Your task to perform on an android device: Go to Android settings Image 0: 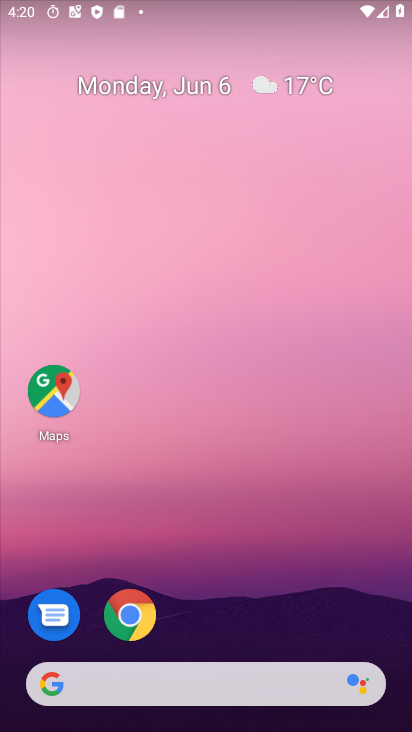
Step 0: drag from (223, 654) to (231, 129)
Your task to perform on an android device: Go to Android settings Image 1: 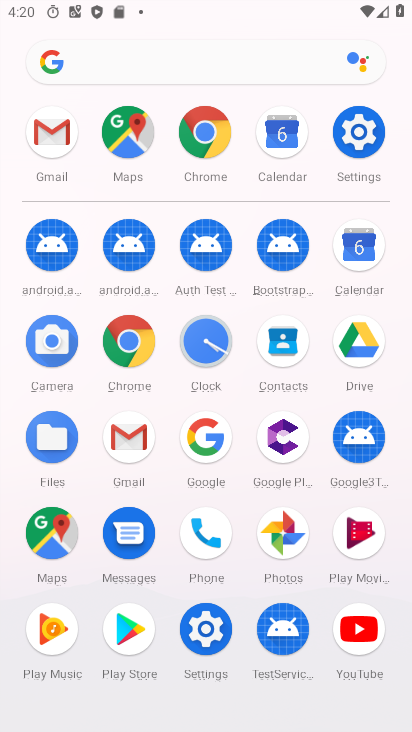
Step 1: click (380, 130)
Your task to perform on an android device: Go to Android settings Image 2: 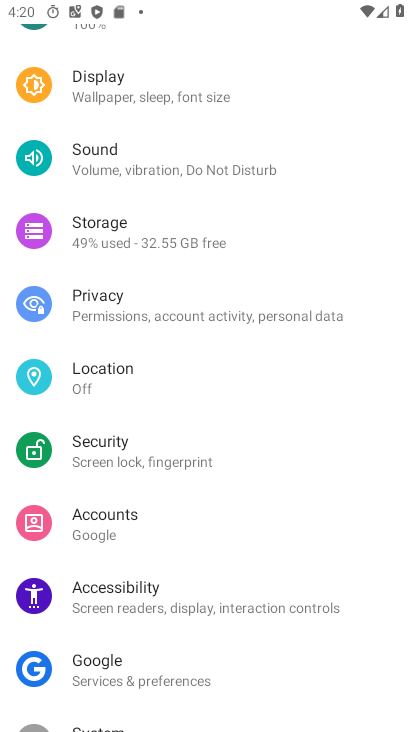
Step 2: drag from (246, 631) to (175, 16)
Your task to perform on an android device: Go to Android settings Image 3: 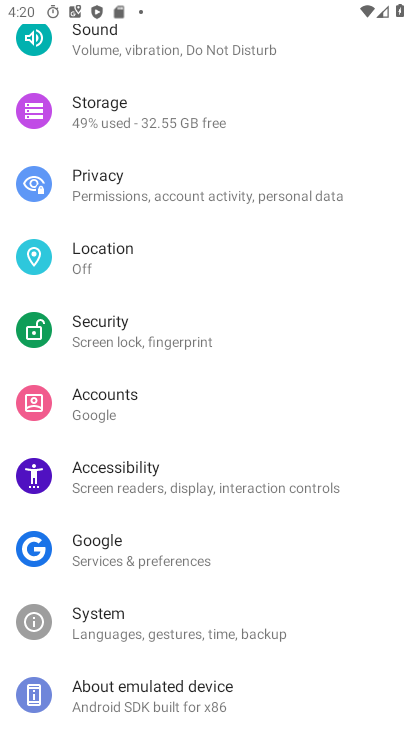
Step 3: click (174, 700)
Your task to perform on an android device: Go to Android settings Image 4: 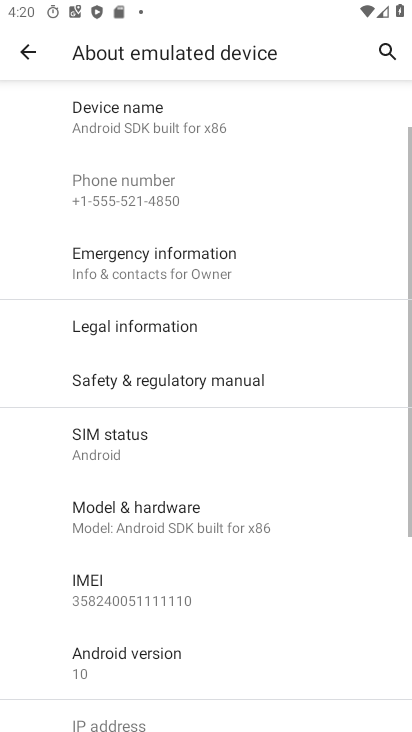
Step 4: click (118, 666)
Your task to perform on an android device: Go to Android settings Image 5: 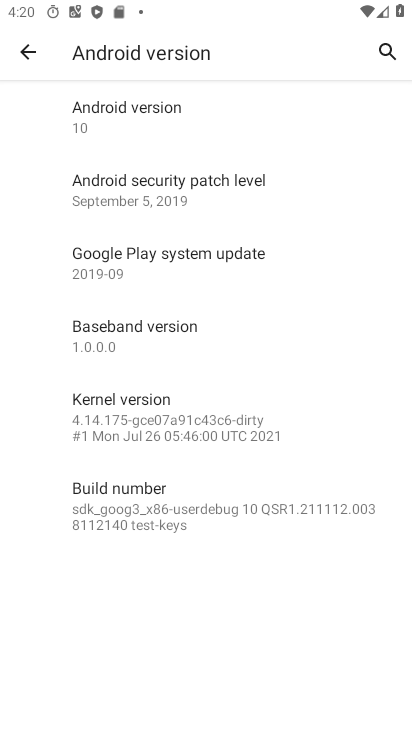
Step 5: task complete